Your task to perform on an android device: Open calendar and show me the second week of next month Image 0: 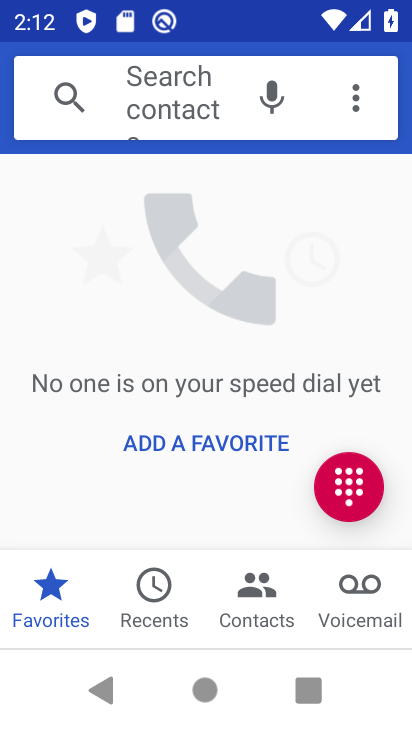
Step 0: press home button
Your task to perform on an android device: Open calendar and show me the second week of next month Image 1: 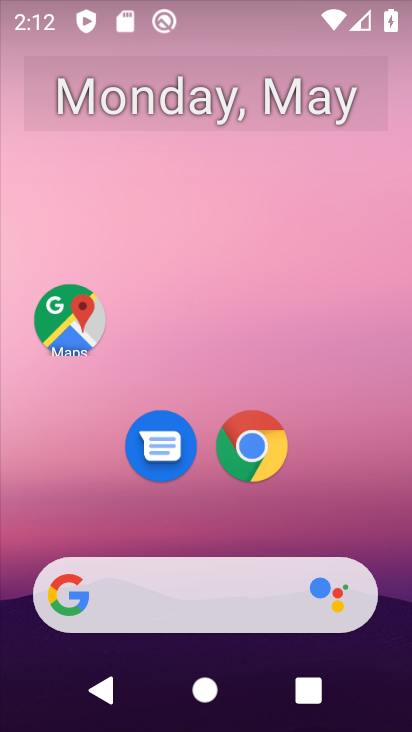
Step 1: drag from (339, 516) to (338, 224)
Your task to perform on an android device: Open calendar and show me the second week of next month Image 2: 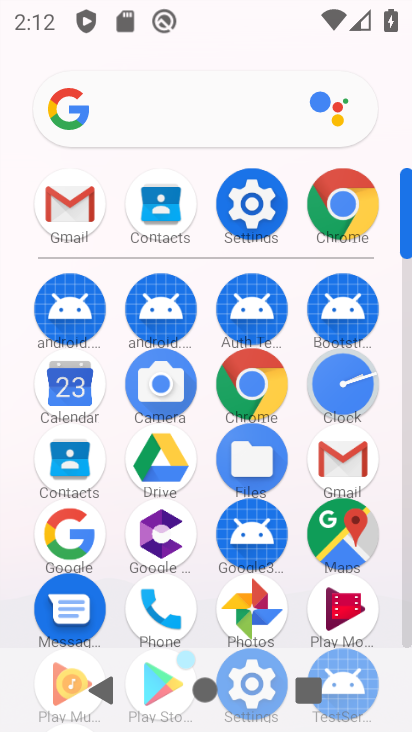
Step 2: click (67, 390)
Your task to perform on an android device: Open calendar and show me the second week of next month Image 3: 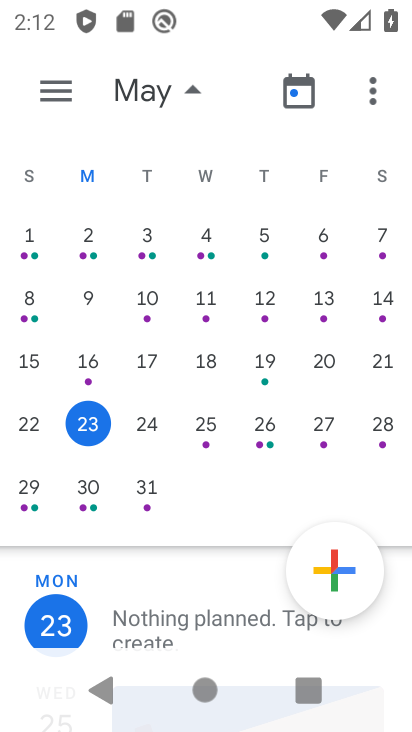
Step 3: drag from (355, 327) to (4, 337)
Your task to perform on an android device: Open calendar and show me the second week of next month Image 4: 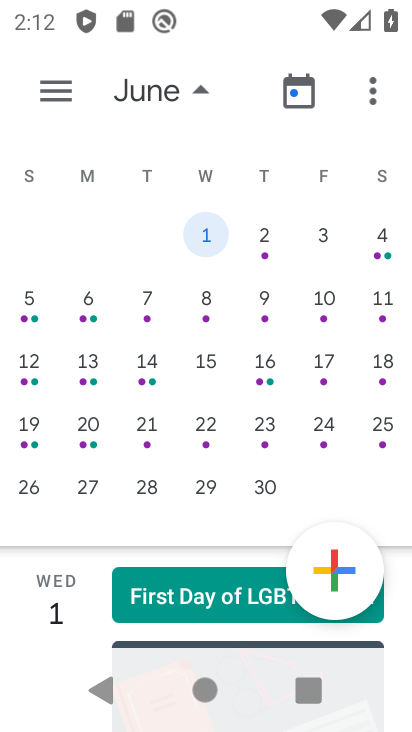
Step 4: click (30, 314)
Your task to perform on an android device: Open calendar and show me the second week of next month Image 5: 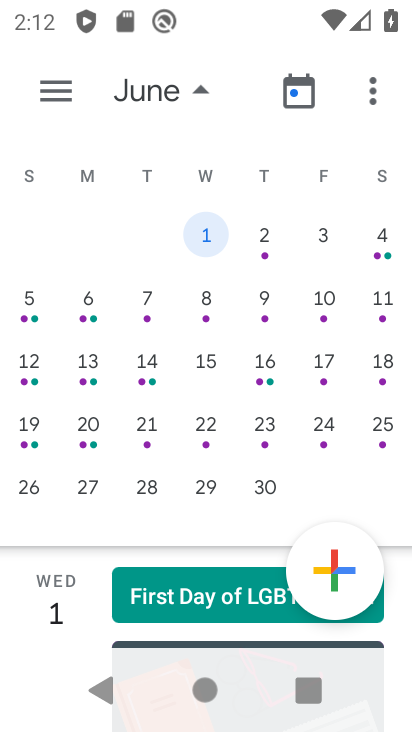
Step 5: click (31, 305)
Your task to perform on an android device: Open calendar and show me the second week of next month Image 6: 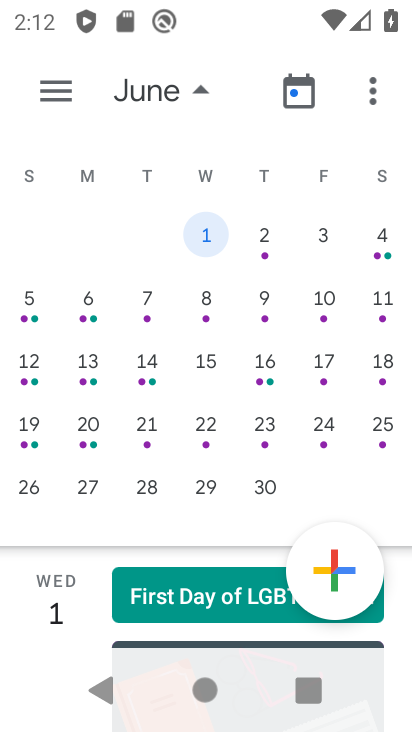
Step 6: click (32, 302)
Your task to perform on an android device: Open calendar and show me the second week of next month Image 7: 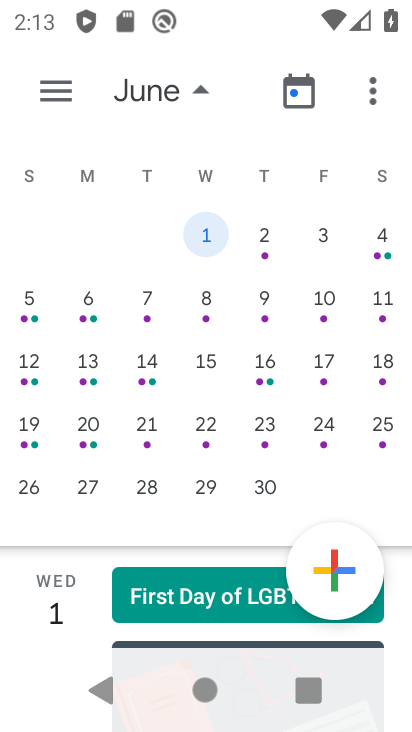
Step 7: click (30, 298)
Your task to perform on an android device: Open calendar and show me the second week of next month Image 8: 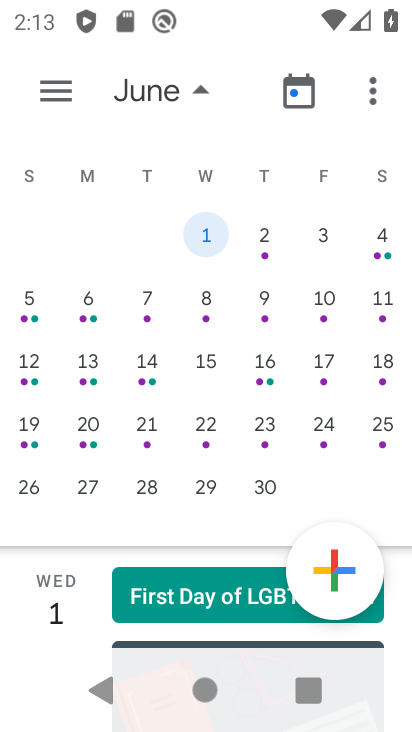
Step 8: click (30, 306)
Your task to perform on an android device: Open calendar and show me the second week of next month Image 9: 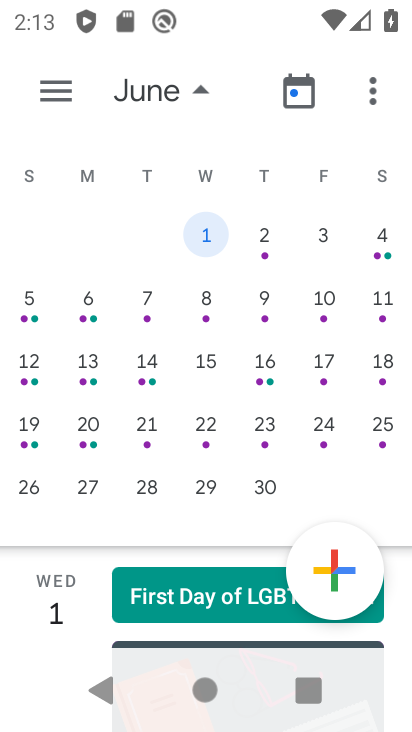
Step 9: click (37, 311)
Your task to perform on an android device: Open calendar and show me the second week of next month Image 10: 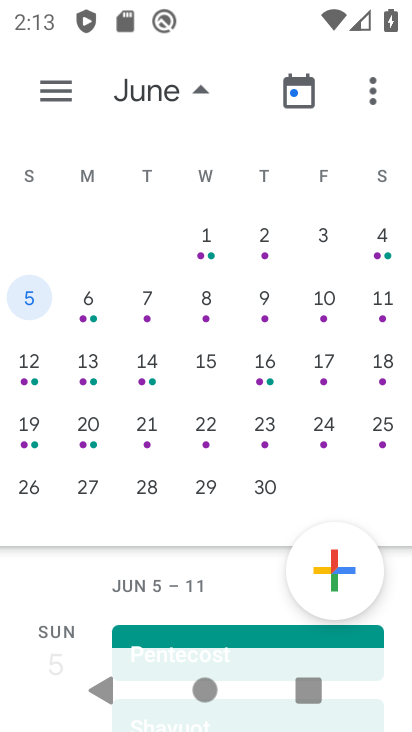
Step 10: task complete